Your task to perform on an android device: What's the weather going to be this weekend? Image 0: 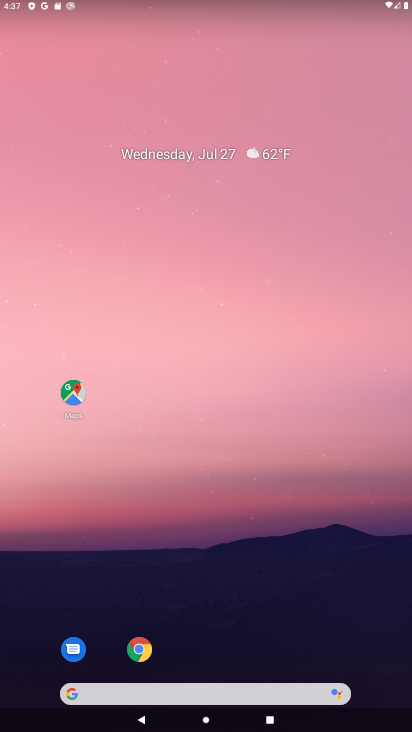
Step 0: click (205, 694)
Your task to perform on an android device: What's the weather going to be this weekend? Image 1: 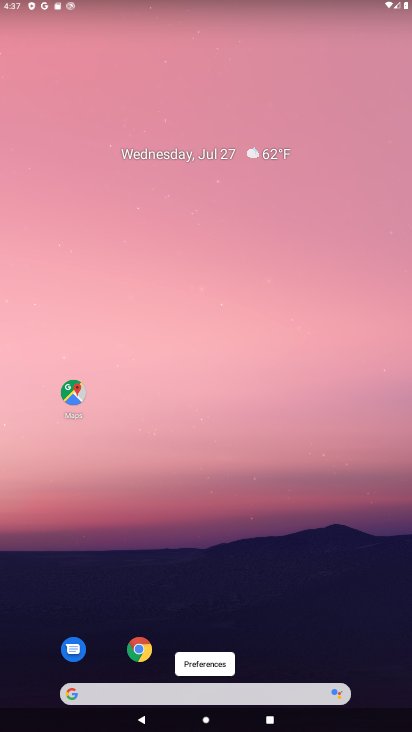
Step 1: type "What's the weather going to be this weekend?"
Your task to perform on an android device: What's the weather going to be this weekend? Image 2: 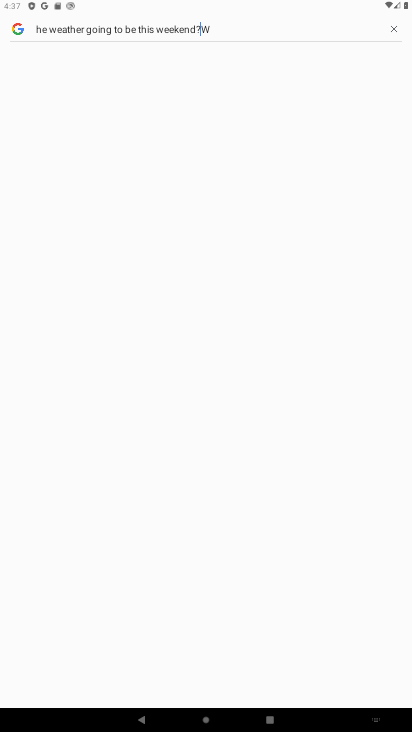
Step 2: press enter
Your task to perform on an android device: What's the weather going to be this weekend? Image 3: 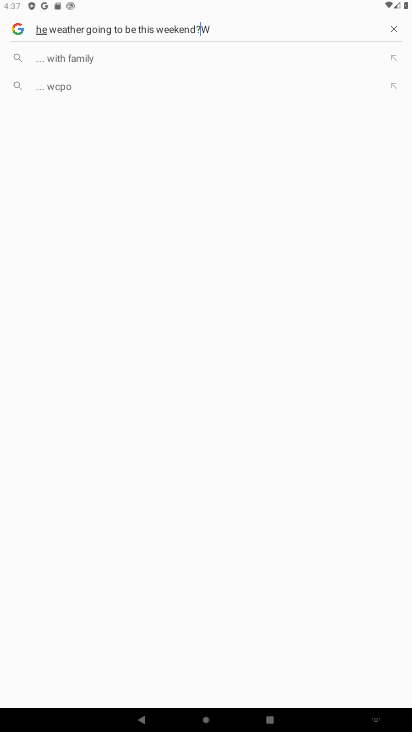
Step 3: type ""
Your task to perform on an android device: What's the weather going to be this weekend? Image 4: 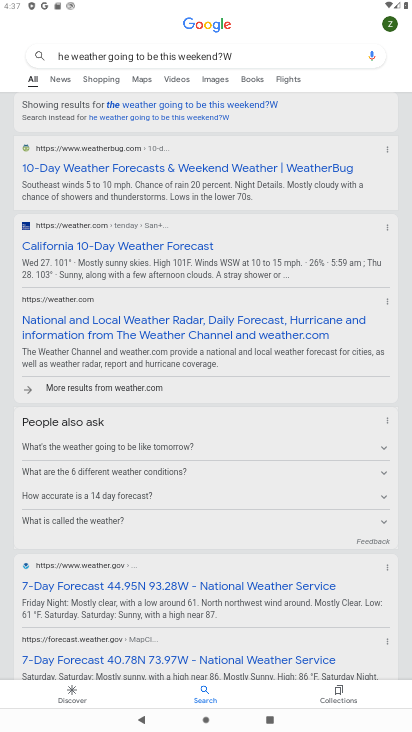
Step 4: task complete